Your task to perform on an android device: Open Wikipedia Image 0: 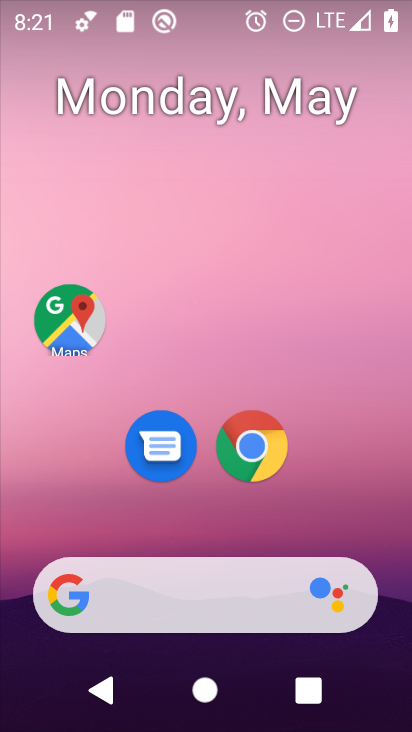
Step 0: click (255, 452)
Your task to perform on an android device: Open Wikipedia Image 1: 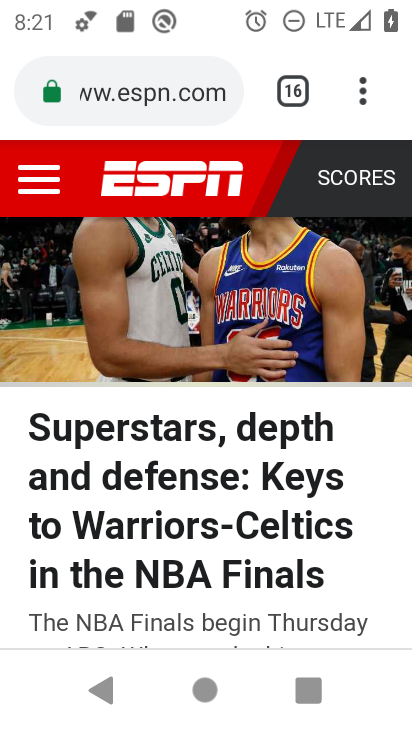
Step 1: click (364, 93)
Your task to perform on an android device: Open Wikipedia Image 2: 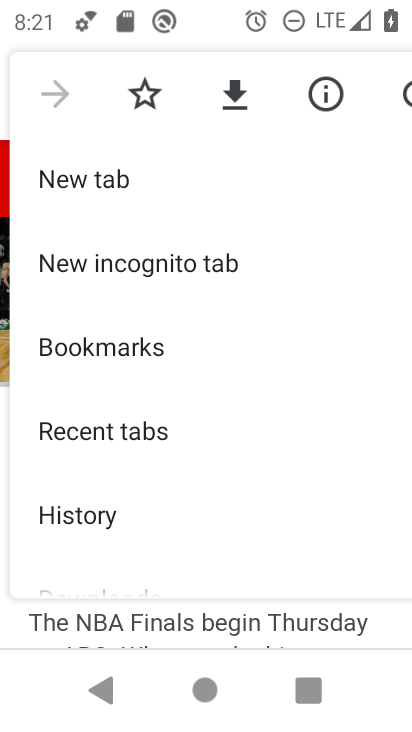
Step 2: click (82, 182)
Your task to perform on an android device: Open Wikipedia Image 3: 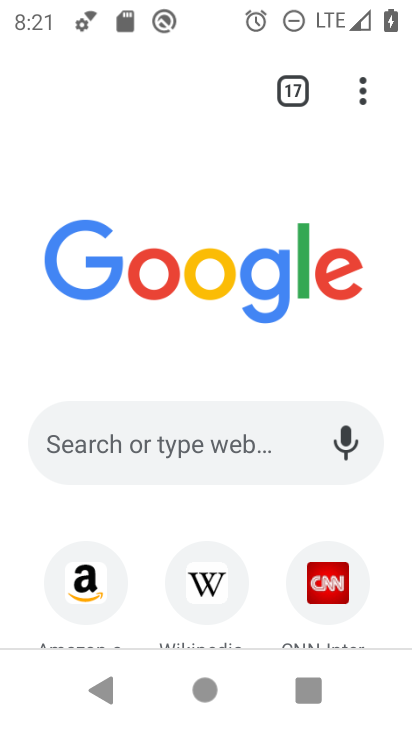
Step 3: click (209, 588)
Your task to perform on an android device: Open Wikipedia Image 4: 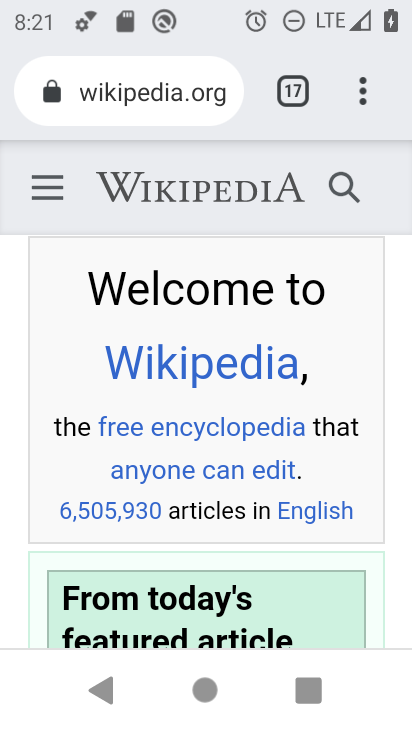
Step 4: task complete